Your task to perform on an android device: Go to battery settings Image 0: 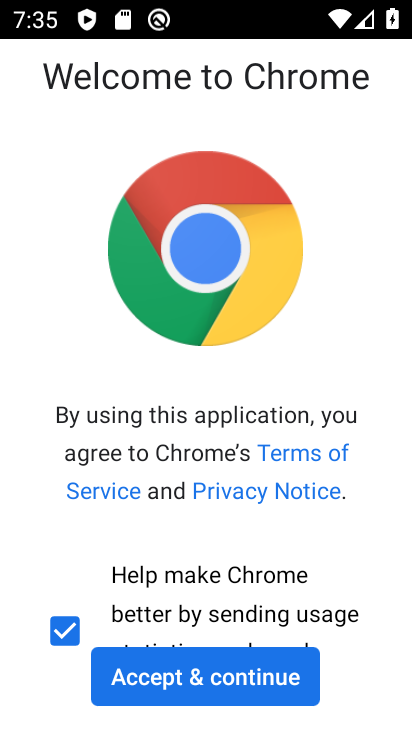
Step 0: press home button
Your task to perform on an android device: Go to battery settings Image 1: 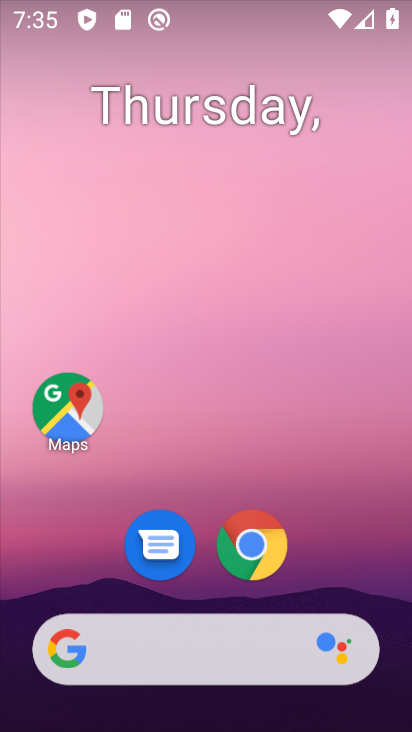
Step 1: drag from (270, 379) to (347, 154)
Your task to perform on an android device: Go to battery settings Image 2: 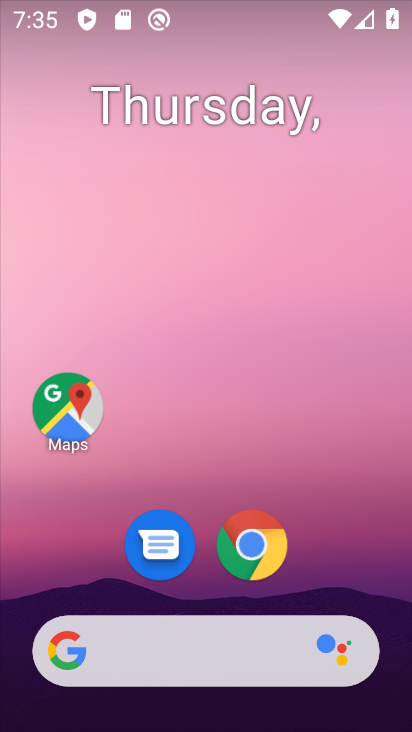
Step 2: drag from (227, 587) to (297, 13)
Your task to perform on an android device: Go to battery settings Image 3: 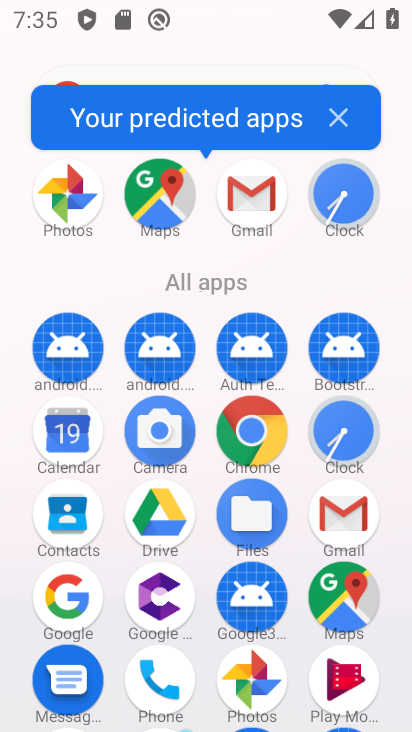
Step 3: drag from (196, 612) to (227, 241)
Your task to perform on an android device: Go to battery settings Image 4: 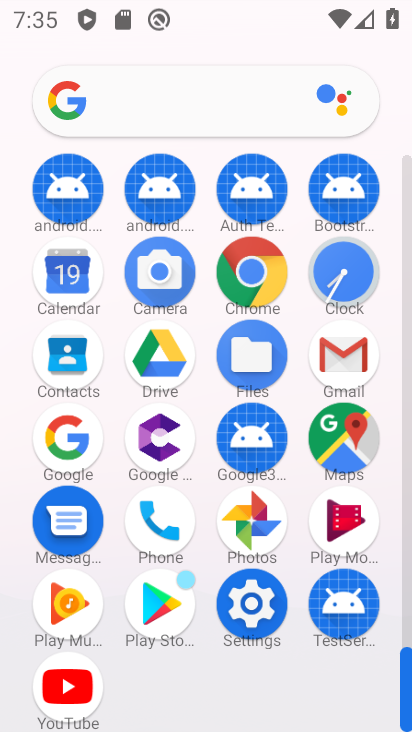
Step 4: click (256, 591)
Your task to perform on an android device: Go to battery settings Image 5: 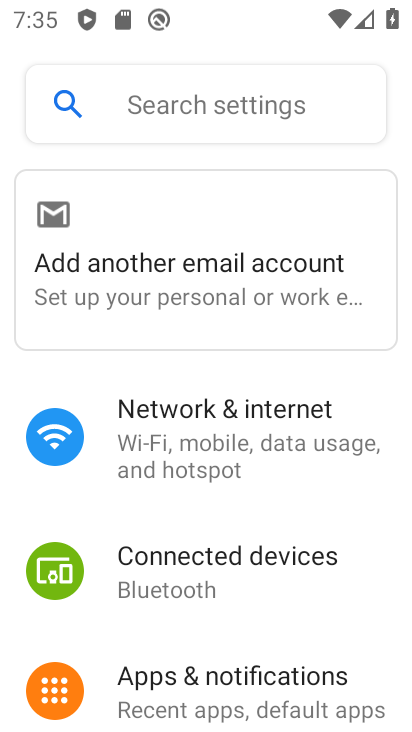
Step 5: drag from (224, 634) to (313, 1)
Your task to perform on an android device: Go to battery settings Image 6: 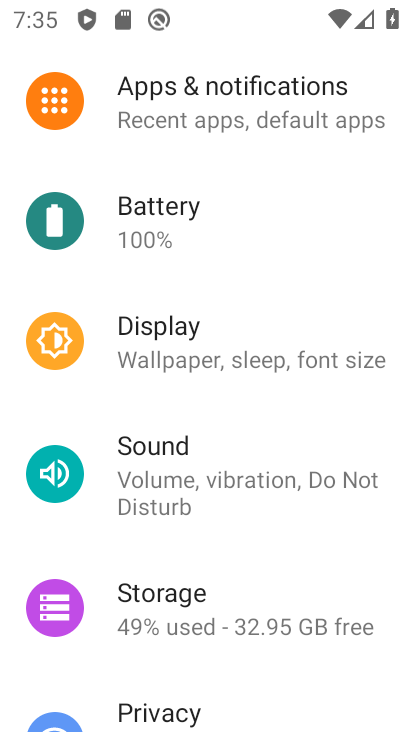
Step 6: drag from (236, 593) to (334, 122)
Your task to perform on an android device: Go to battery settings Image 7: 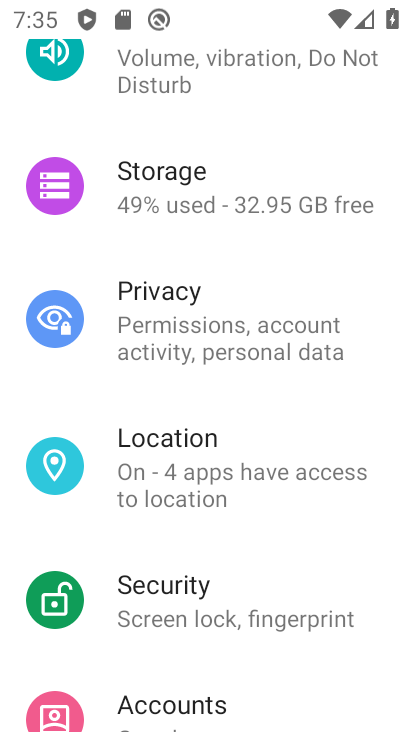
Step 7: drag from (334, 122) to (315, 667)
Your task to perform on an android device: Go to battery settings Image 8: 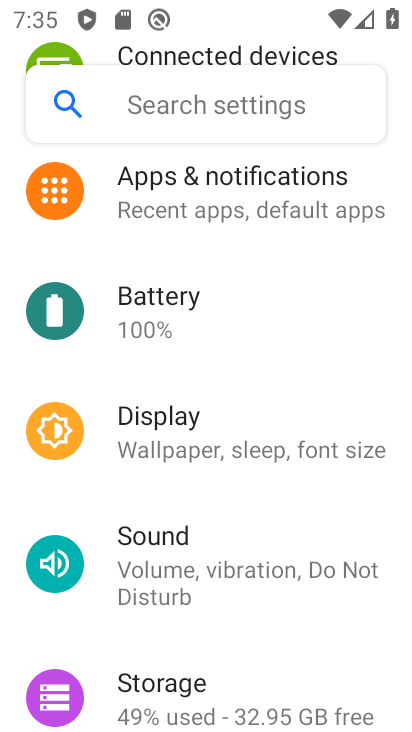
Step 8: click (194, 281)
Your task to perform on an android device: Go to battery settings Image 9: 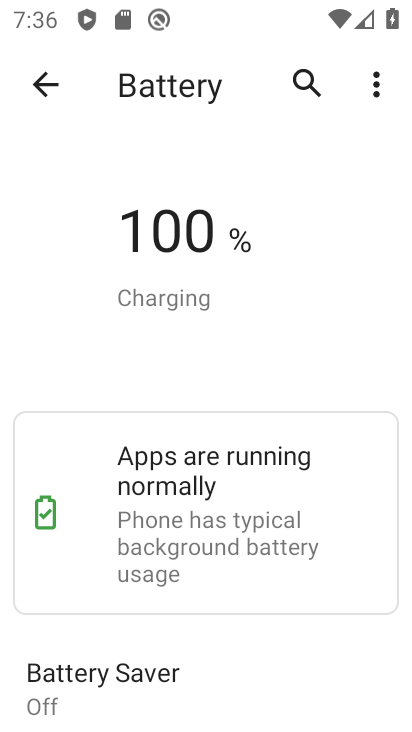
Step 9: task complete